Your task to perform on an android device: Open Android settings Image 0: 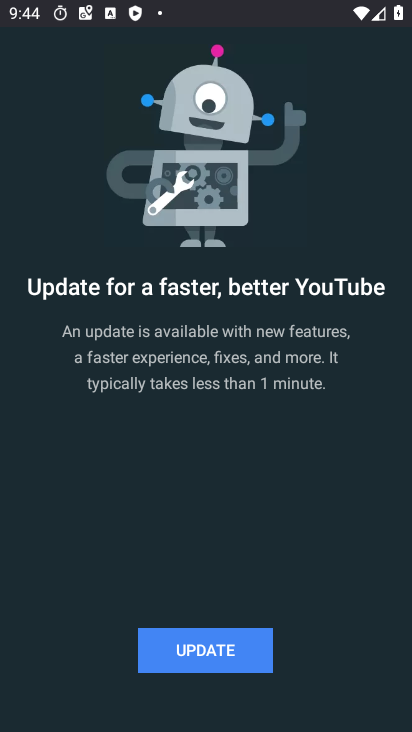
Step 0: press home button
Your task to perform on an android device: Open Android settings Image 1: 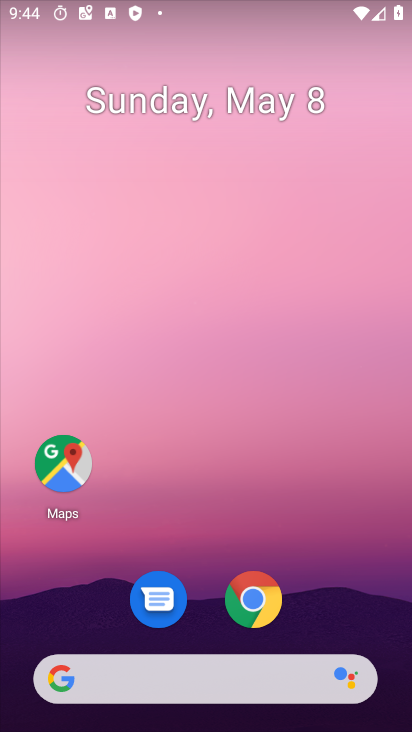
Step 1: drag from (224, 637) to (224, 189)
Your task to perform on an android device: Open Android settings Image 2: 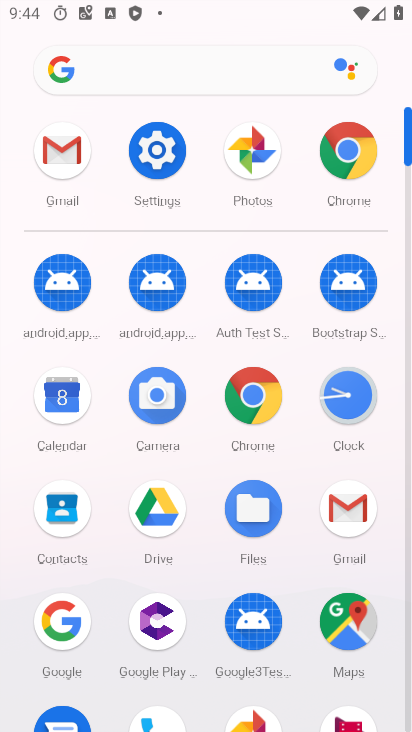
Step 2: click (161, 167)
Your task to perform on an android device: Open Android settings Image 3: 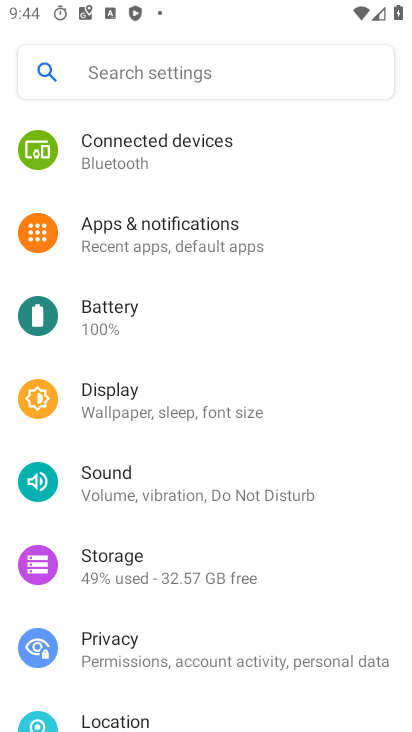
Step 3: drag from (229, 561) to (264, 88)
Your task to perform on an android device: Open Android settings Image 4: 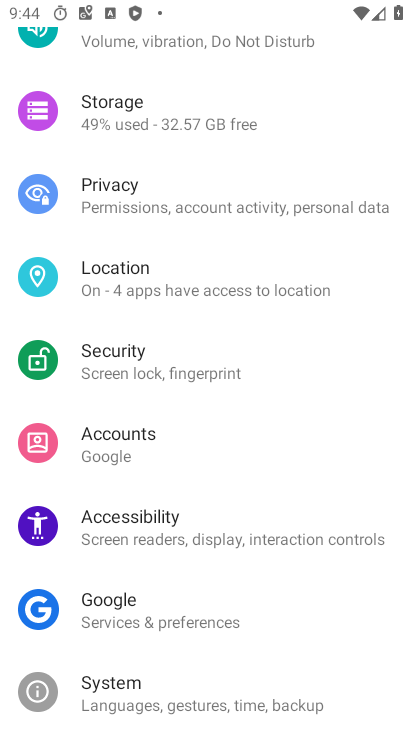
Step 4: drag from (155, 508) to (237, 213)
Your task to perform on an android device: Open Android settings Image 5: 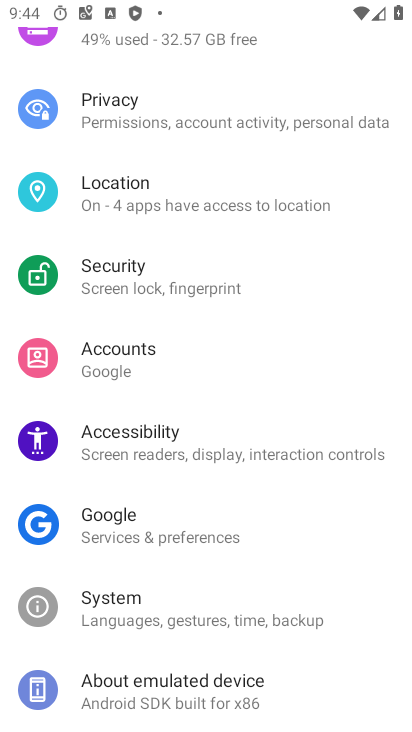
Step 5: click (166, 676)
Your task to perform on an android device: Open Android settings Image 6: 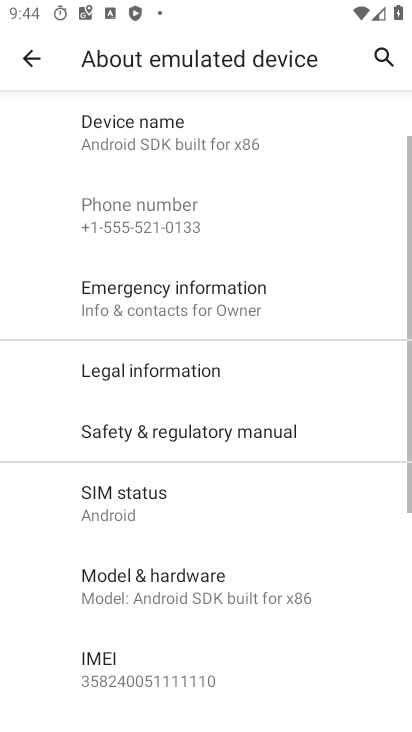
Step 6: drag from (199, 480) to (194, 170)
Your task to perform on an android device: Open Android settings Image 7: 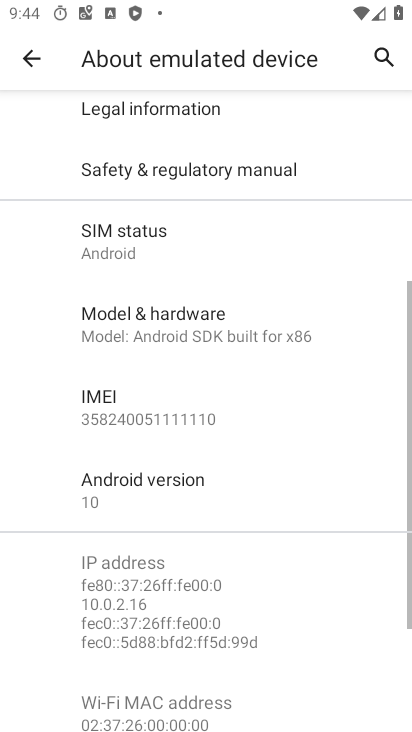
Step 7: click (177, 484)
Your task to perform on an android device: Open Android settings Image 8: 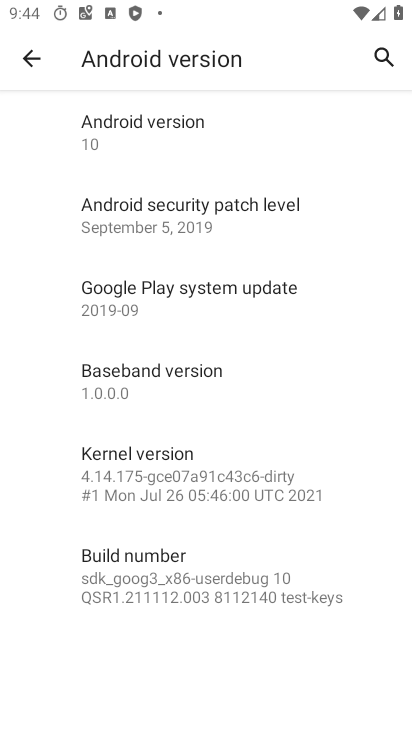
Step 8: click (285, 115)
Your task to perform on an android device: Open Android settings Image 9: 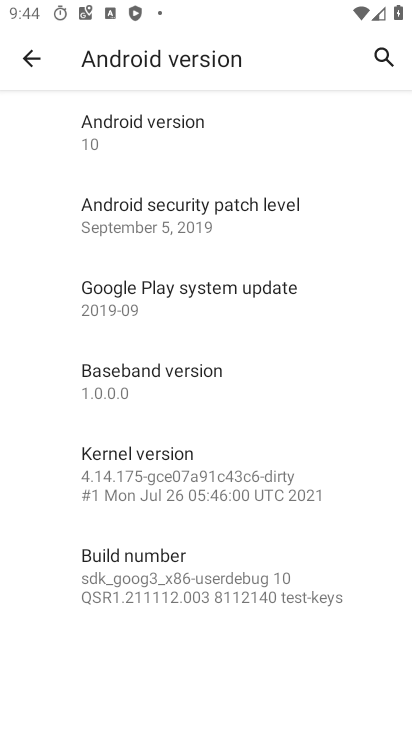
Step 9: task complete